Your task to perform on an android device: Is it going to rain this weekend? Image 0: 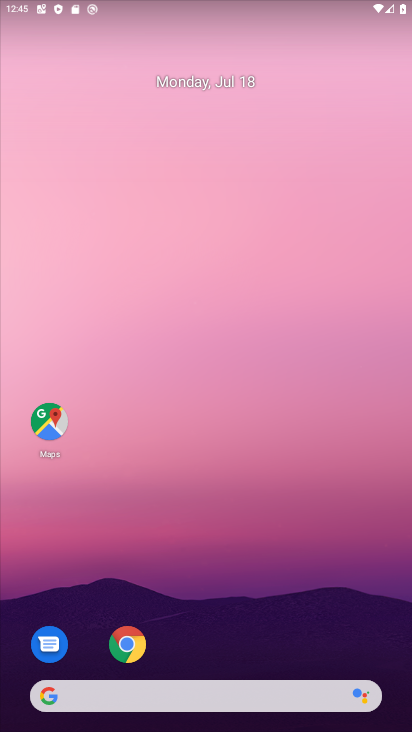
Step 0: click (132, 654)
Your task to perform on an android device: Is it going to rain this weekend? Image 1: 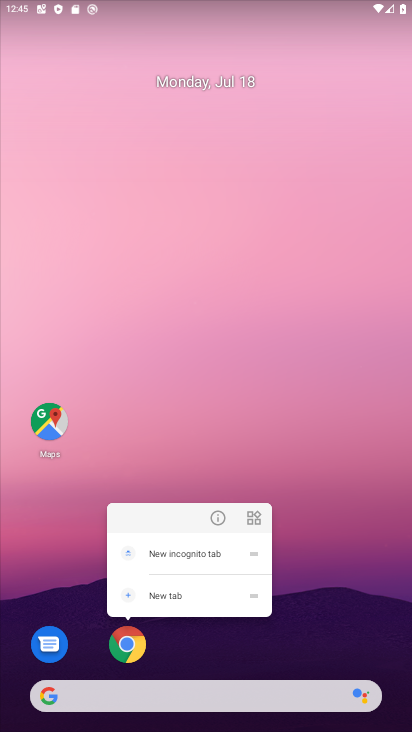
Step 1: click (103, 653)
Your task to perform on an android device: Is it going to rain this weekend? Image 2: 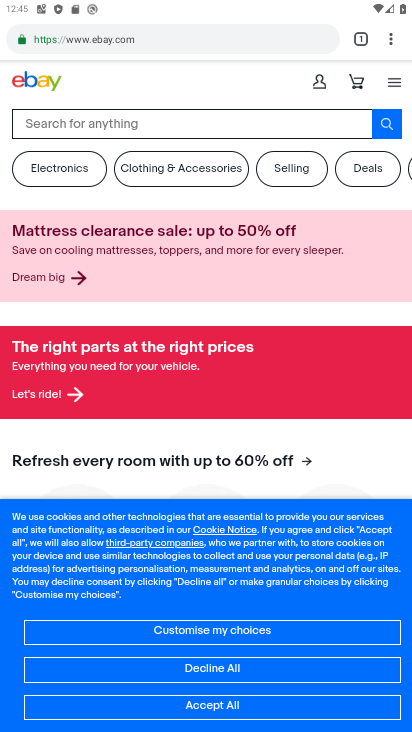
Step 2: click (103, 653)
Your task to perform on an android device: Is it going to rain this weekend? Image 3: 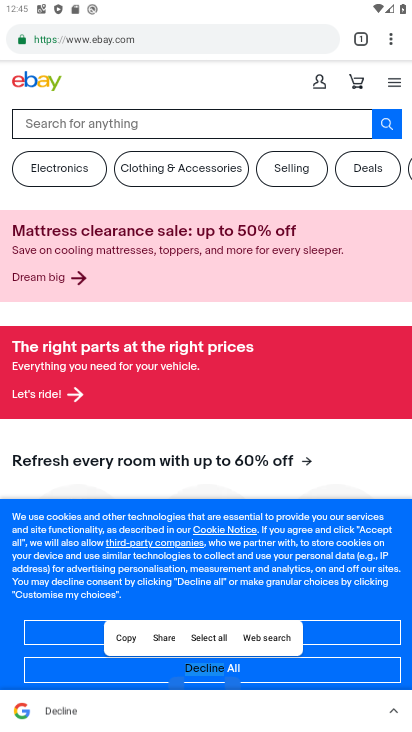
Step 3: click (124, 81)
Your task to perform on an android device: Is it going to rain this weekend? Image 4: 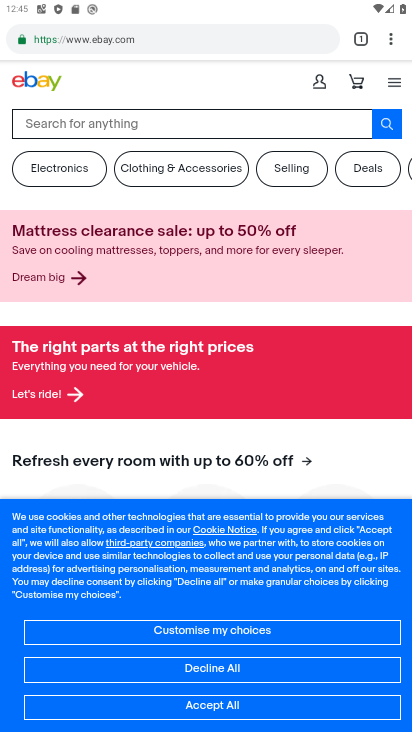
Step 4: click (133, 35)
Your task to perform on an android device: Is it going to rain this weekend? Image 5: 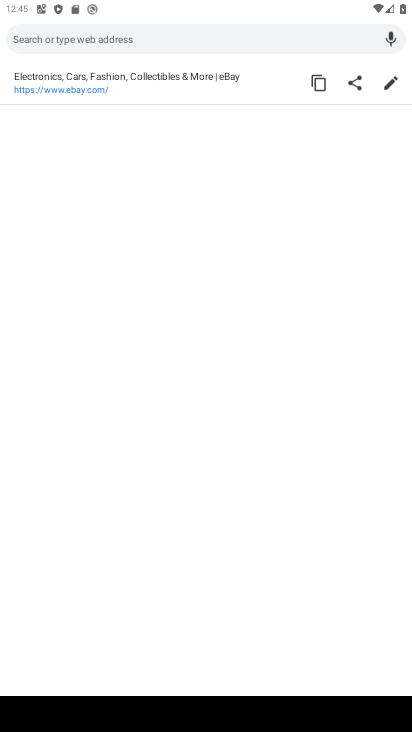
Step 5: type "Is it going to rain this weekend?"
Your task to perform on an android device: Is it going to rain this weekend? Image 6: 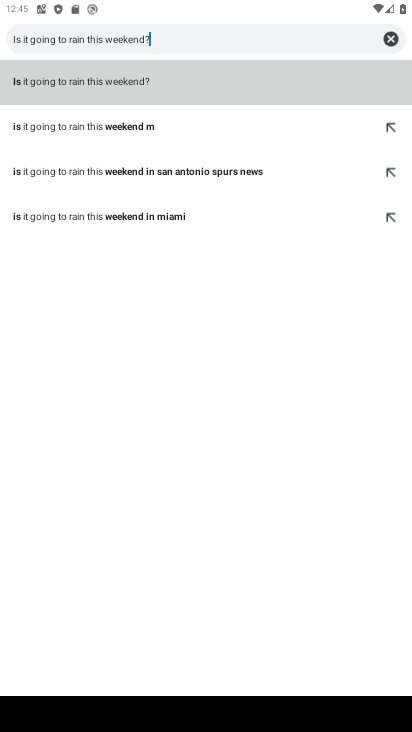
Step 6: type ""
Your task to perform on an android device: Is it going to rain this weekend? Image 7: 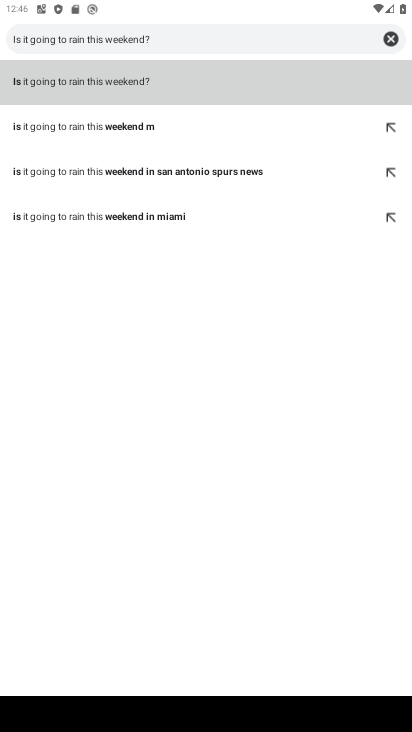
Step 7: click (86, 76)
Your task to perform on an android device: Is it going to rain this weekend? Image 8: 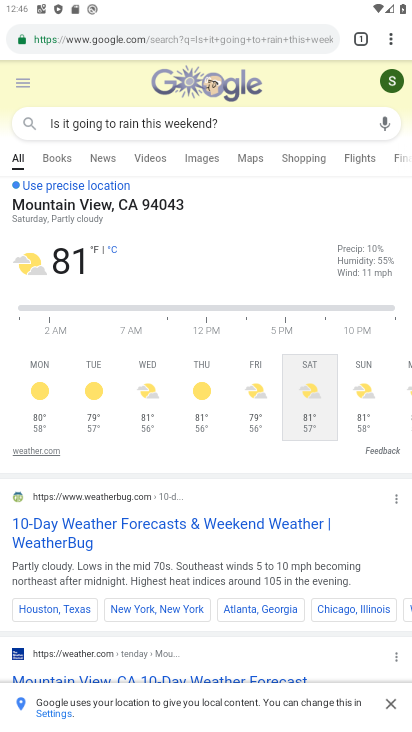
Step 8: task complete